Your task to perform on an android device: turn on translation in the chrome app Image 0: 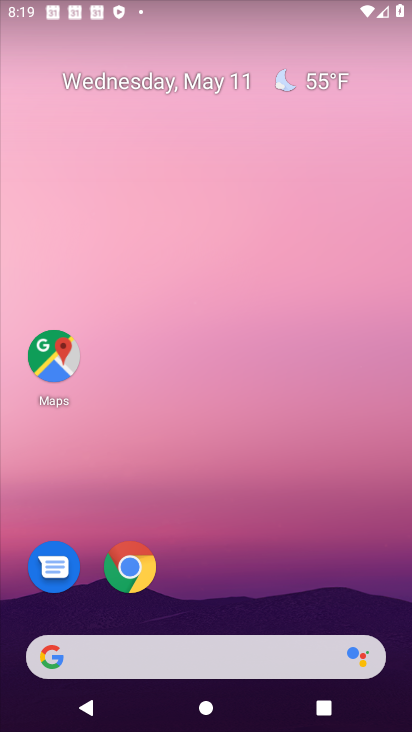
Step 0: drag from (267, 640) to (244, 102)
Your task to perform on an android device: turn on translation in the chrome app Image 1: 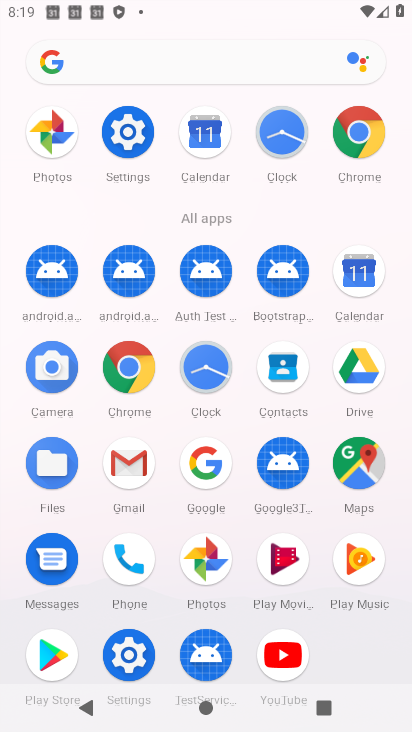
Step 1: click (131, 367)
Your task to perform on an android device: turn on translation in the chrome app Image 2: 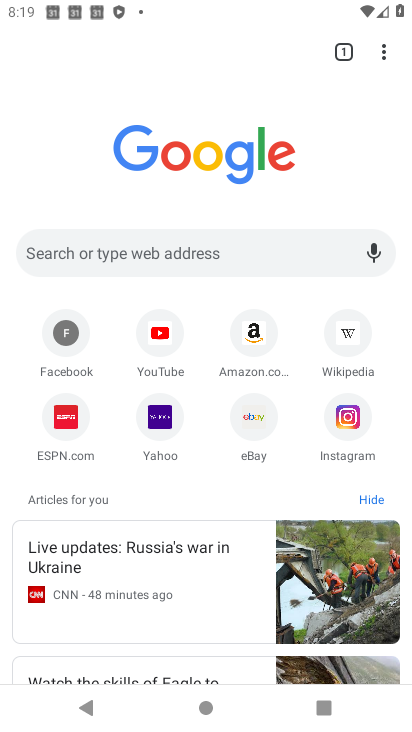
Step 2: click (382, 49)
Your task to perform on an android device: turn on translation in the chrome app Image 3: 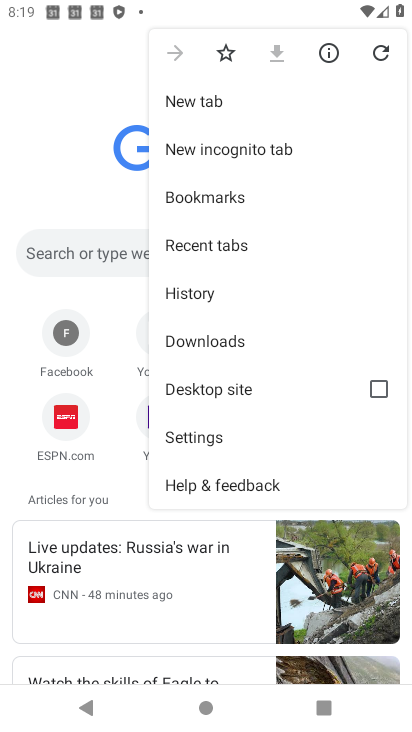
Step 3: click (239, 444)
Your task to perform on an android device: turn on translation in the chrome app Image 4: 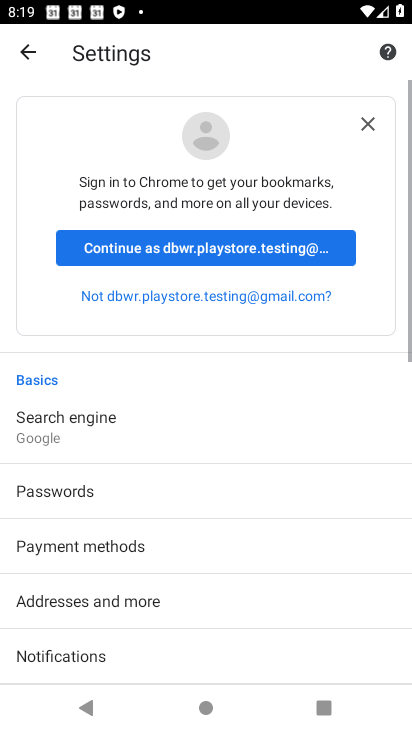
Step 4: drag from (205, 625) to (208, 302)
Your task to perform on an android device: turn on translation in the chrome app Image 5: 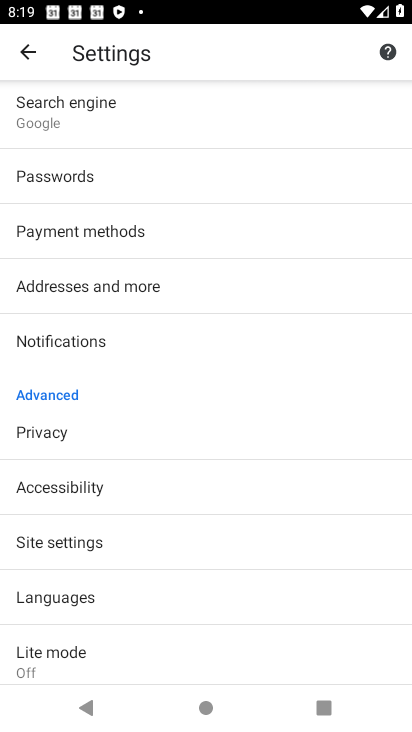
Step 5: click (95, 556)
Your task to perform on an android device: turn on translation in the chrome app Image 6: 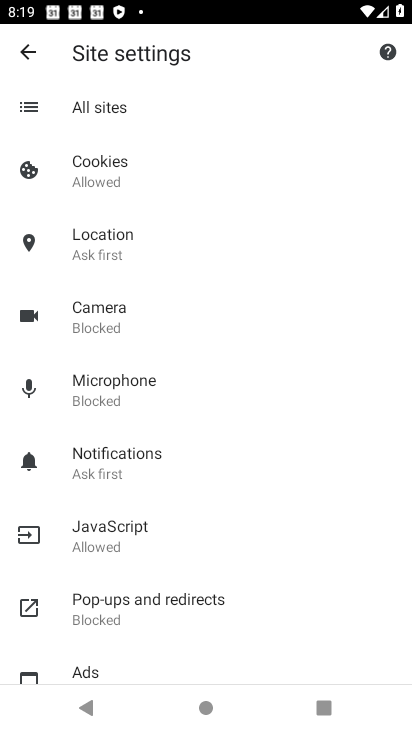
Step 6: press back button
Your task to perform on an android device: turn on translation in the chrome app Image 7: 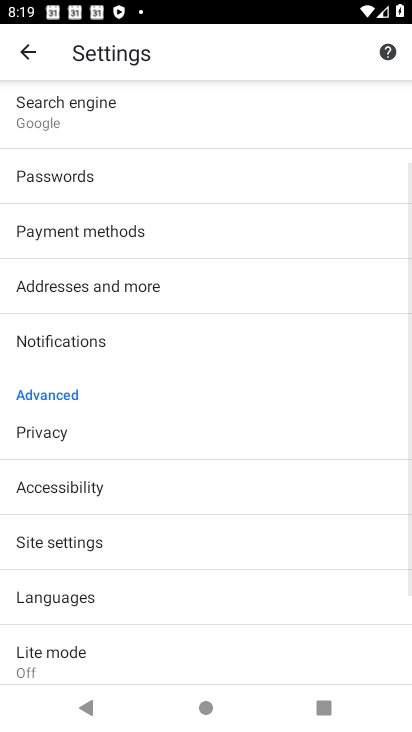
Step 7: click (107, 603)
Your task to perform on an android device: turn on translation in the chrome app Image 8: 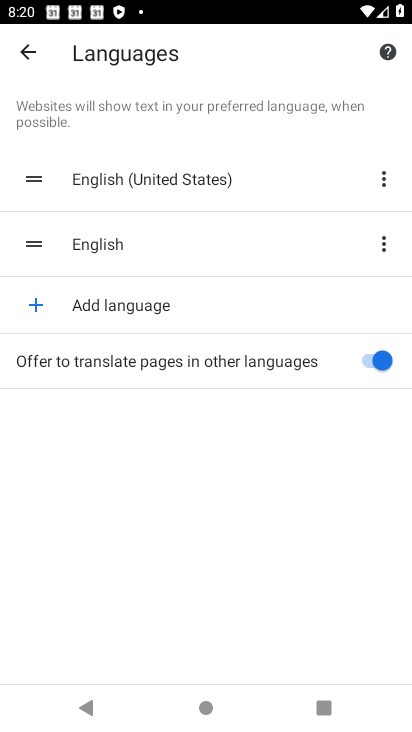
Step 8: task complete